Your task to perform on an android device: change alarm snooze length Image 0: 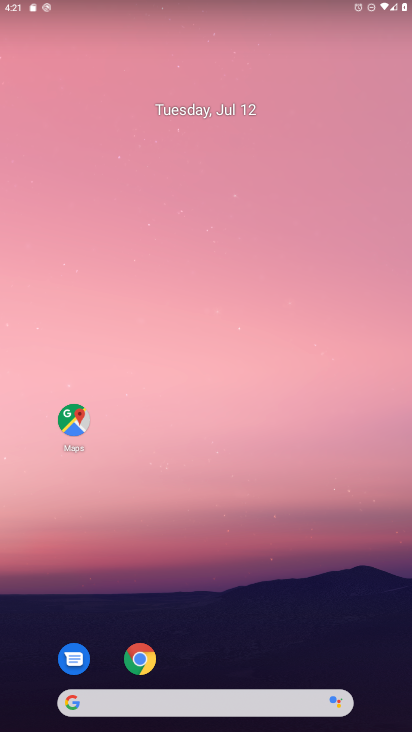
Step 0: click (206, 21)
Your task to perform on an android device: change alarm snooze length Image 1: 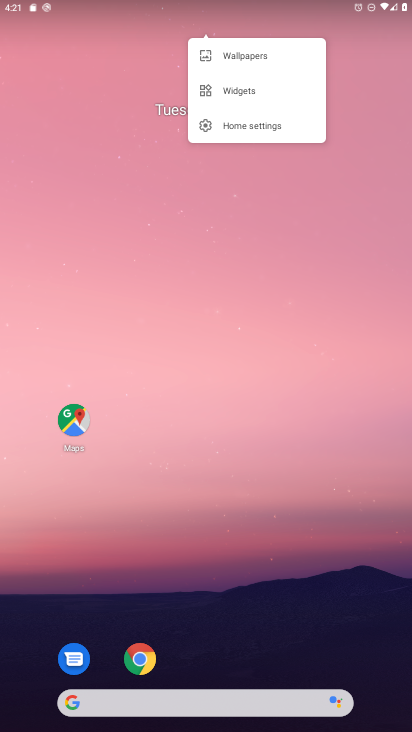
Step 1: click (203, 510)
Your task to perform on an android device: change alarm snooze length Image 2: 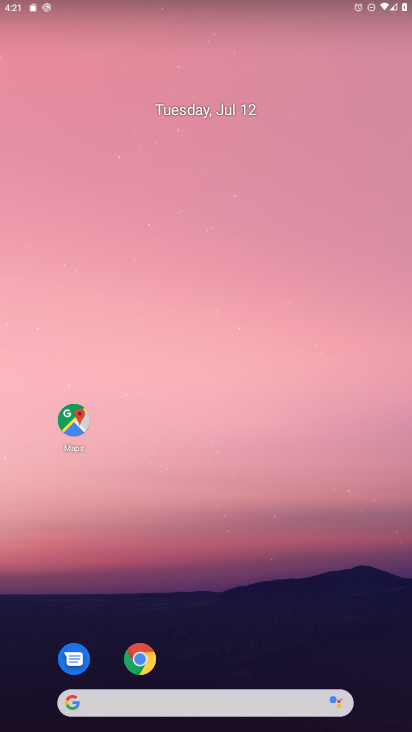
Step 2: drag from (182, 571) to (198, 95)
Your task to perform on an android device: change alarm snooze length Image 3: 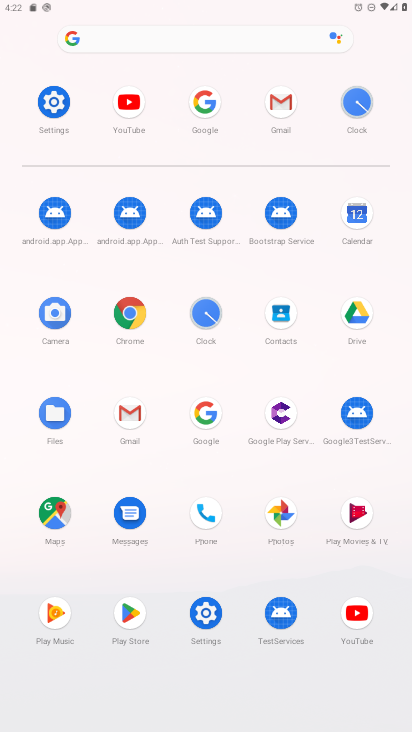
Step 3: click (197, 320)
Your task to perform on an android device: change alarm snooze length Image 4: 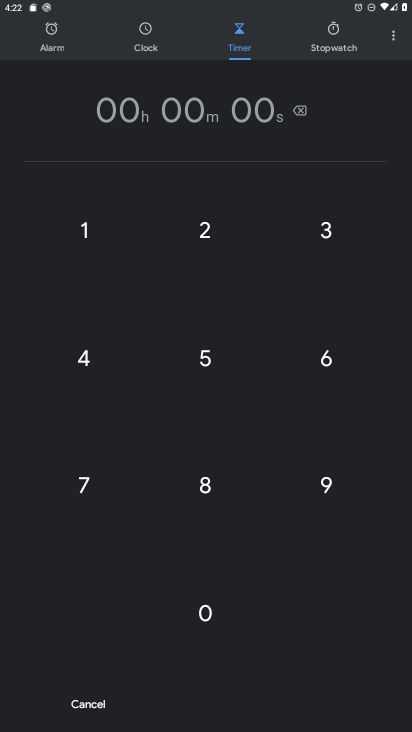
Step 4: click (392, 32)
Your task to perform on an android device: change alarm snooze length Image 5: 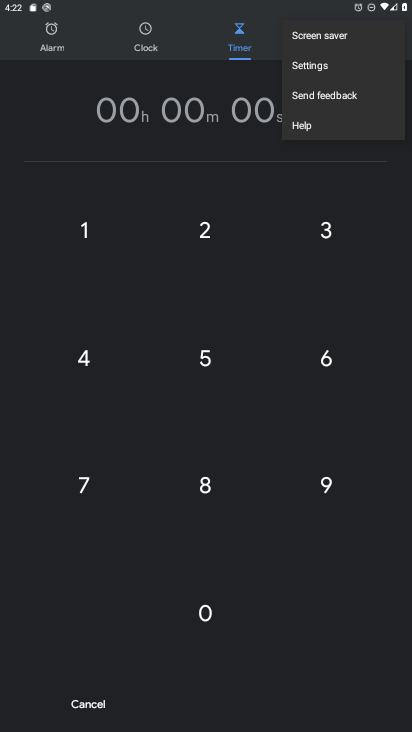
Step 5: click (343, 68)
Your task to perform on an android device: change alarm snooze length Image 6: 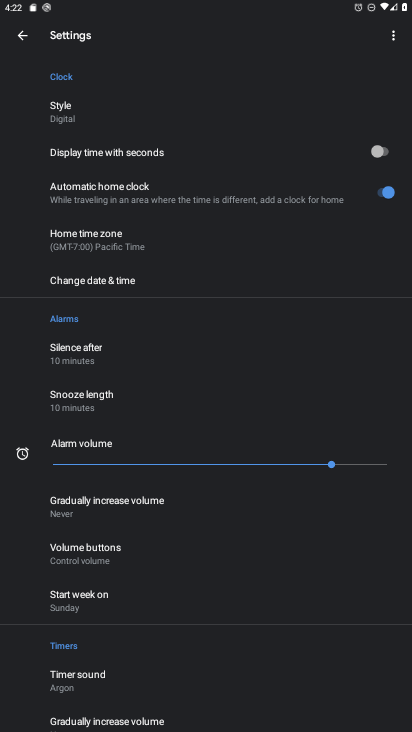
Step 6: click (99, 406)
Your task to perform on an android device: change alarm snooze length Image 7: 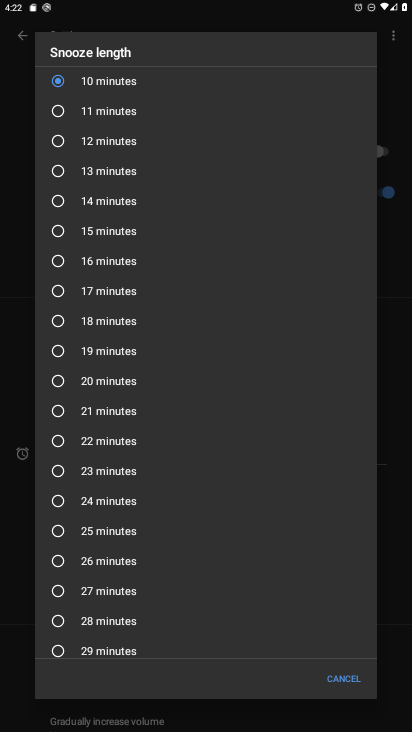
Step 7: click (60, 232)
Your task to perform on an android device: change alarm snooze length Image 8: 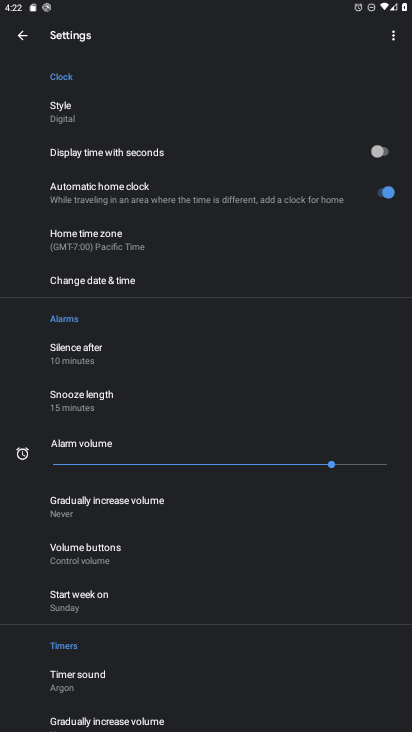
Step 8: task complete